Your task to perform on an android device: empty trash in google photos Image 0: 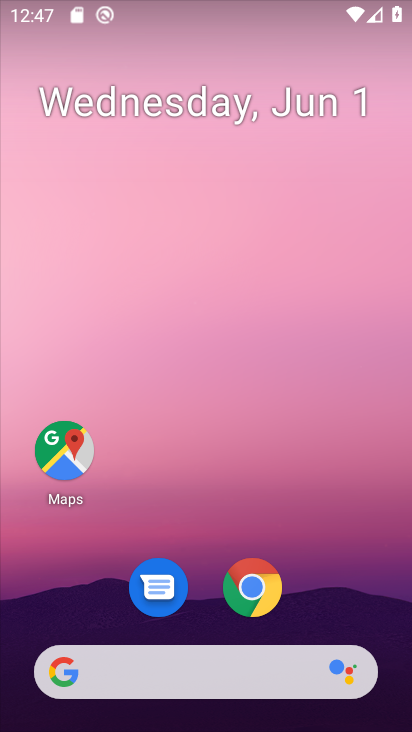
Step 0: drag from (313, 538) to (330, 37)
Your task to perform on an android device: empty trash in google photos Image 1: 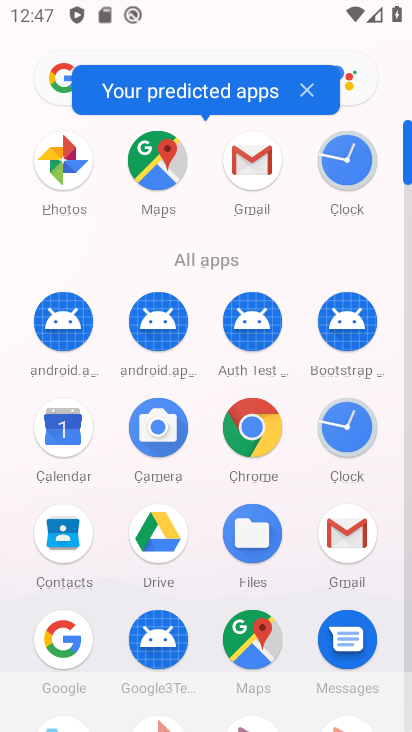
Step 1: drag from (296, 317) to (322, 55)
Your task to perform on an android device: empty trash in google photos Image 2: 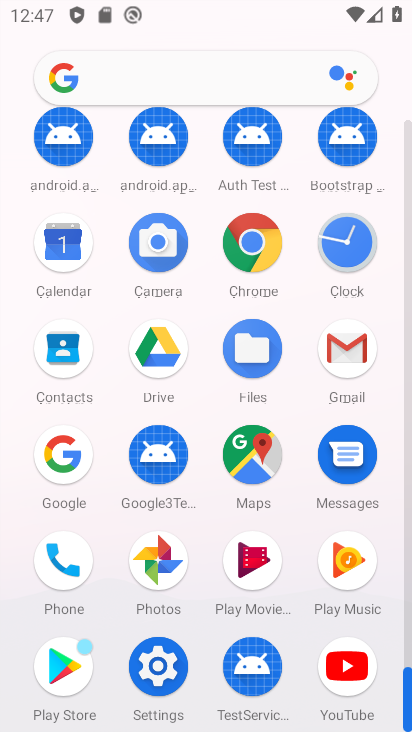
Step 2: click (163, 555)
Your task to perform on an android device: empty trash in google photos Image 3: 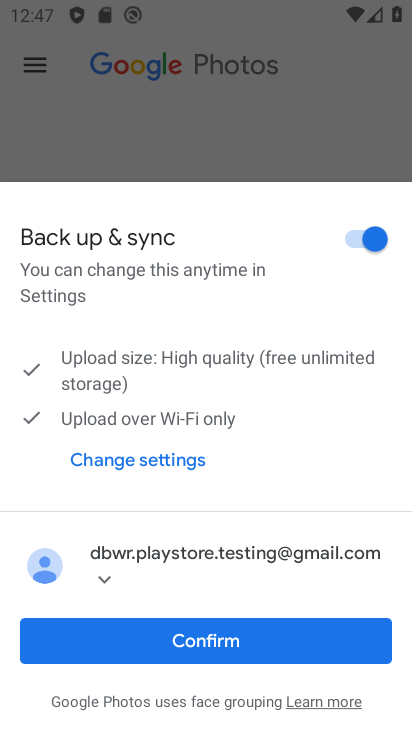
Step 3: click (267, 647)
Your task to perform on an android device: empty trash in google photos Image 4: 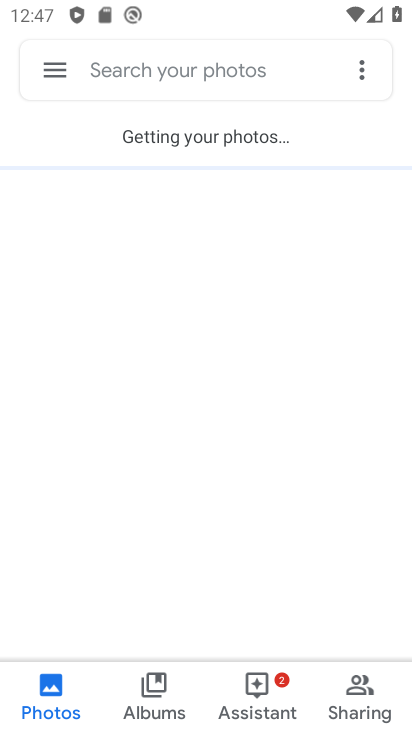
Step 4: click (49, 69)
Your task to perform on an android device: empty trash in google photos Image 5: 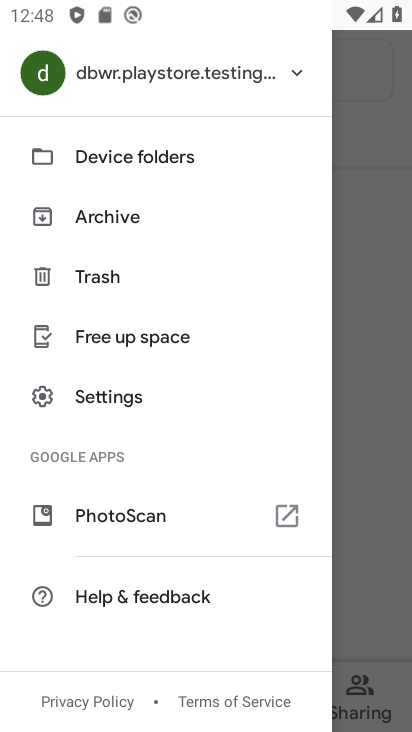
Step 5: click (109, 279)
Your task to perform on an android device: empty trash in google photos Image 6: 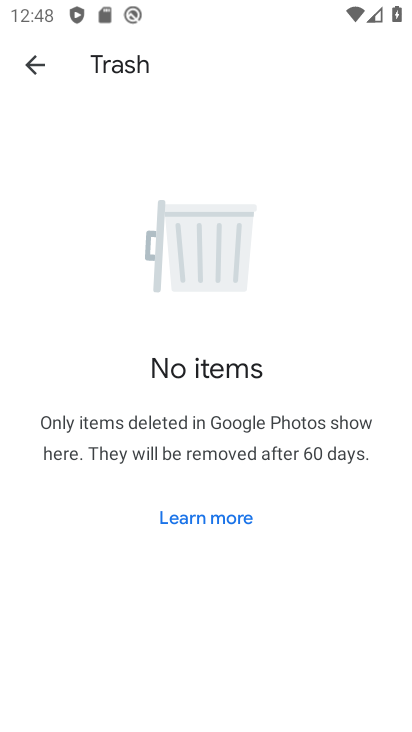
Step 6: task complete